Your task to perform on an android device: View the shopping cart on ebay.com. Add razer naga to the cart on ebay.com, then select checkout. Image 0: 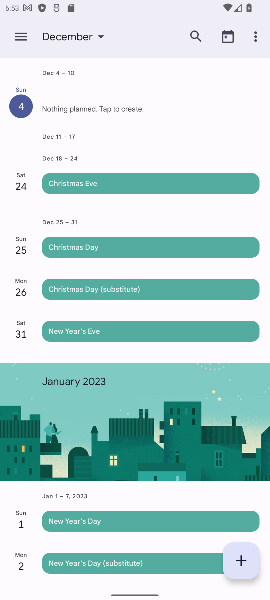
Step 0: press home button
Your task to perform on an android device: View the shopping cart on ebay.com. Add razer naga to the cart on ebay.com, then select checkout. Image 1: 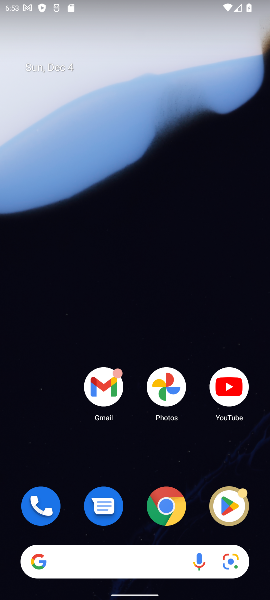
Step 1: click (177, 506)
Your task to perform on an android device: View the shopping cart on ebay.com. Add razer naga to the cart on ebay.com, then select checkout. Image 2: 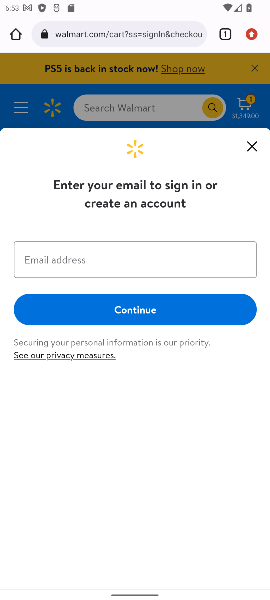
Step 2: click (131, 27)
Your task to perform on an android device: View the shopping cart on ebay.com. Add razer naga to the cart on ebay.com, then select checkout. Image 3: 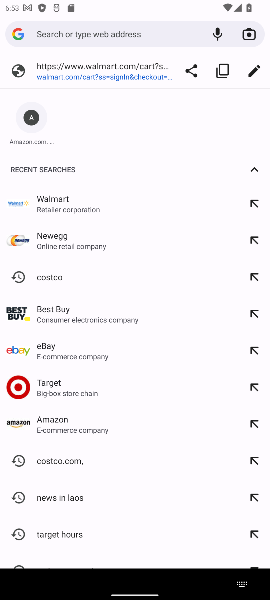
Step 3: click (52, 351)
Your task to perform on an android device: View the shopping cart on ebay.com. Add razer naga to the cart on ebay.com, then select checkout. Image 4: 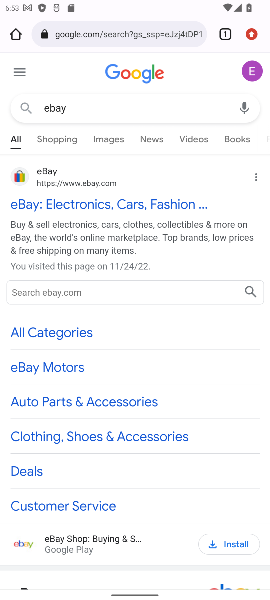
Step 4: click (118, 200)
Your task to perform on an android device: View the shopping cart on ebay.com. Add razer naga to the cart on ebay.com, then select checkout. Image 5: 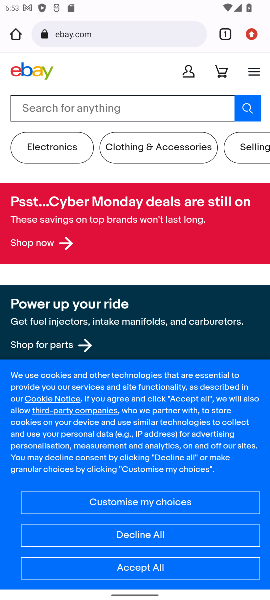
Step 5: click (222, 79)
Your task to perform on an android device: View the shopping cart on ebay.com. Add razer naga to the cart on ebay.com, then select checkout. Image 6: 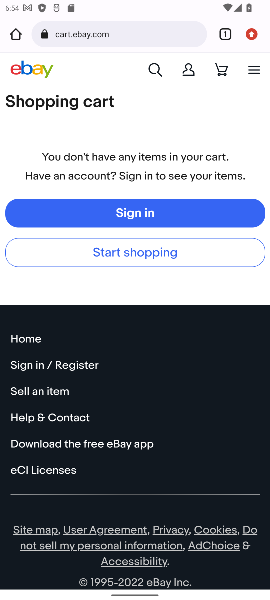
Step 6: click (160, 71)
Your task to perform on an android device: View the shopping cart on ebay.com. Add razer naga to the cart on ebay.com, then select checkout. Image 7: 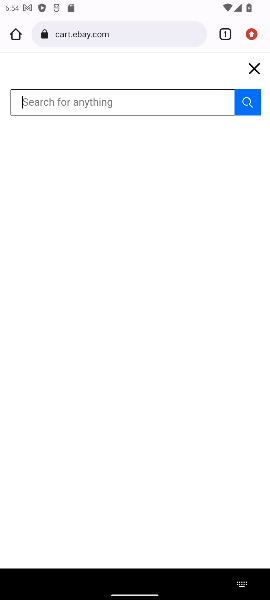
Step 7: type "razer naga"
Your task to perform on an android device: View the shopping cart on ebay.com. Add razer naga to the cart on ebay.com, then select checkout. Image 8: 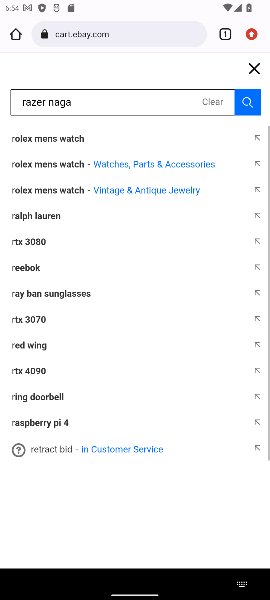
Step 8: click (246, 97)
Your task to perform on an android device: View the shopping cart on ebay.com. Add razer naga to the cart on ebay.com, then select checkout. Image 9: 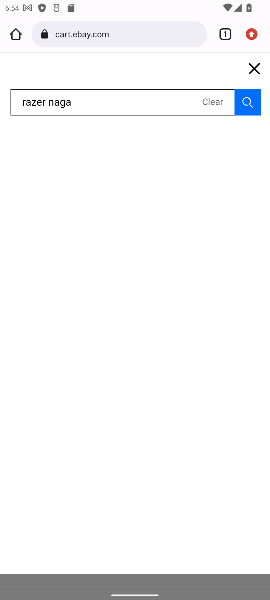
Step 9: click (246, 97)
Your task to perform on an android device: View the shopping cart on ebay.com. Add razer naga to the cart on ebay.com, then select checkout. Image 10: 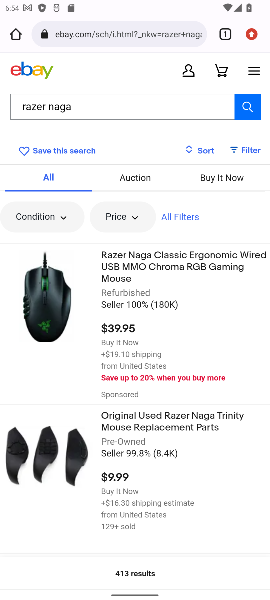
Step 10: click (143, 264)
Your task to perform on an android device: View the shopping cart on ebay.com. Add razer naga to the cart on ebay.com, then select checkout. Image 11: 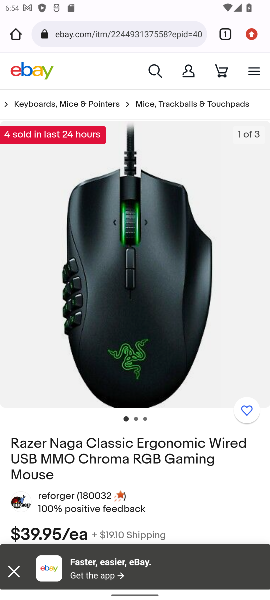
Step 11: drag from (168, 521) to (157, 149)
Your task to perform on an android device: View the shopping cart on ebay.com. Add razer naga to the cart on ebay.com, then select checkout. Image 12: 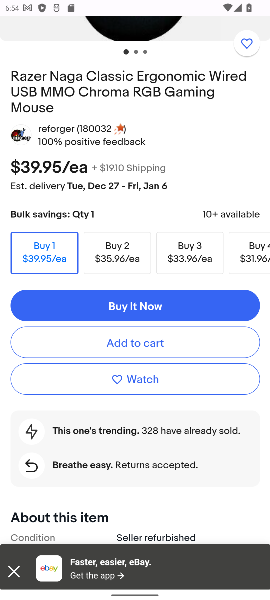
Step 12: click (83, 336)
Your task to perform on an android device: View the shopping cart on ebay.com. Add razer naga to the cart on ebay.com, then select checkout. Image 13: 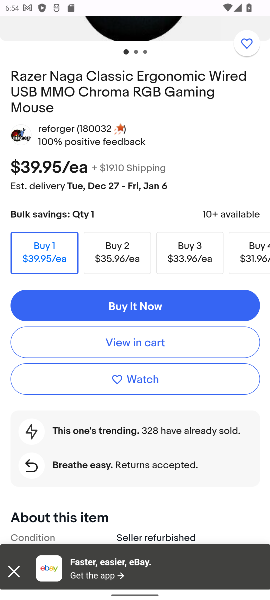
Step 13: click (83, 336)
Your task to perform on an android device: View the shopping cart on ebay.com. Add razer naga to the cart on ebay.com, then select checkout. Image 14: 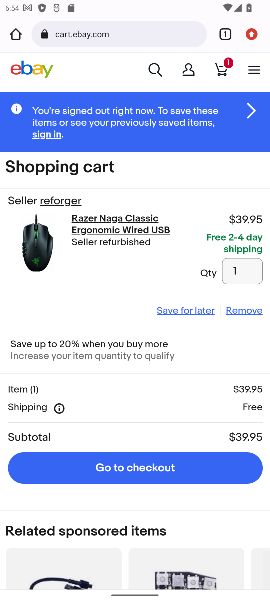
Step 14: click (106, 479)
Your task to perform on an android device: View the shopping cart on ebay.com. Add razer naga to the cart on ebay.com, then select checkout. Image 15: 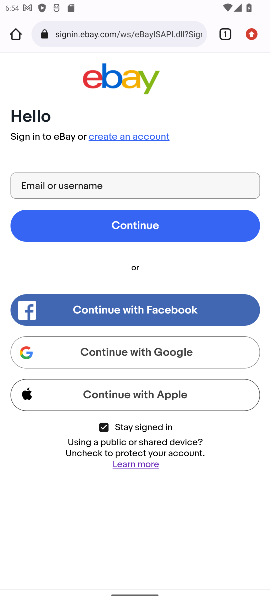
Step 15: task complete